Your task to perform on an android device: check battery use Image 0: 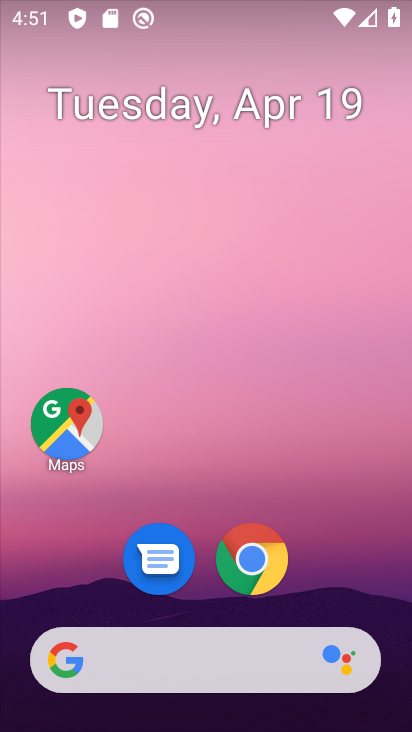
Step 0: drag from (329, 598) to (281, 12)
Your task to perform on an android device: check battery use Image 1: 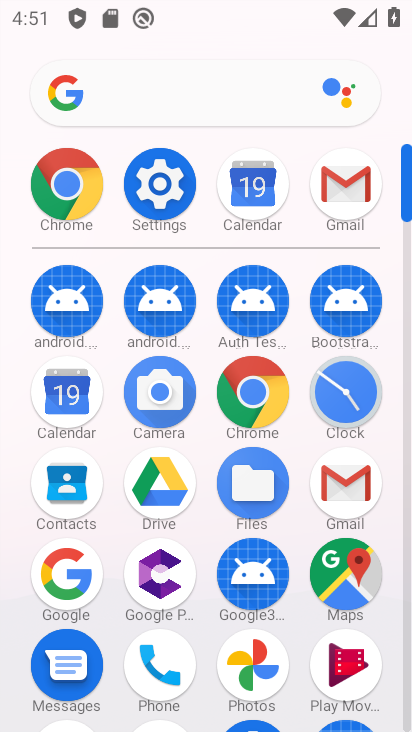
Step 1: click (163, 186)
Your task to perform on an android device: check battery use Image 2: 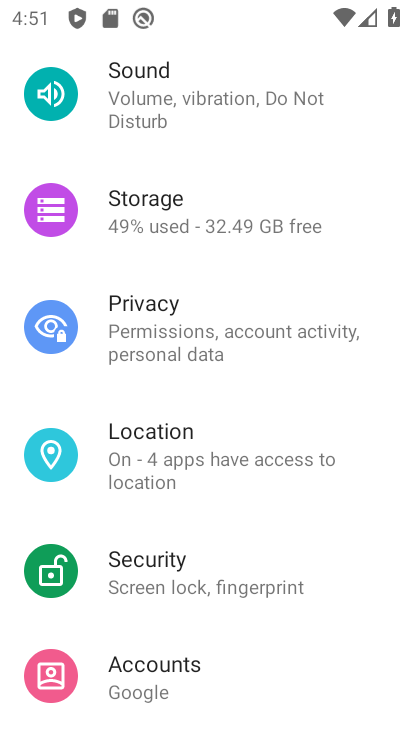
Step 2: drag from (274, 464) to (345, 716)
Your task to perform on an android device: check battery use Image 3: 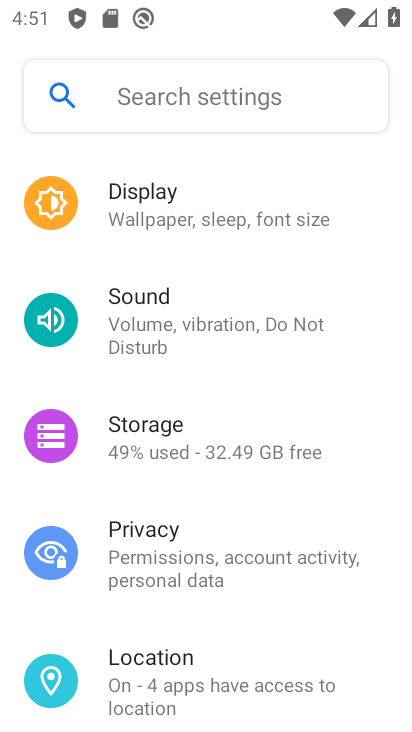
Step 3: drag from (284, 355) to (298, 689)
Your task to perform on an android device: check battery use Image 4: 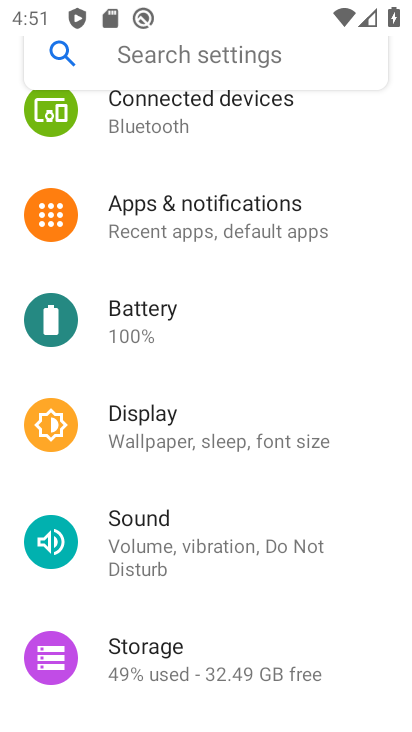
Step 4: click (222, 327)
Your task to perform on an android device: check battery use Image 5: 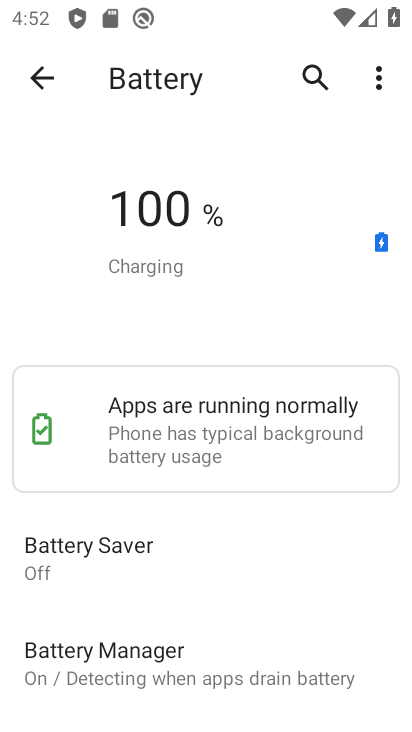
Step 5: task complete